Your task to perform on an android device: Go to privacy settings Image 0: 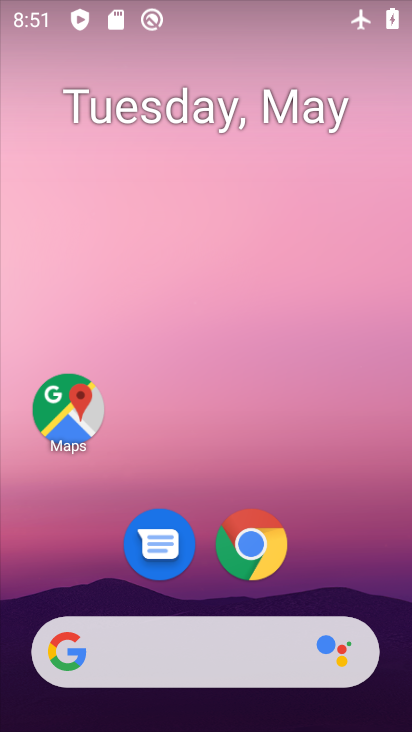
Step 0: drag from (352, 539) to (328, 233)
Your task to perform on an android device: Go to privacy settings Image 1: 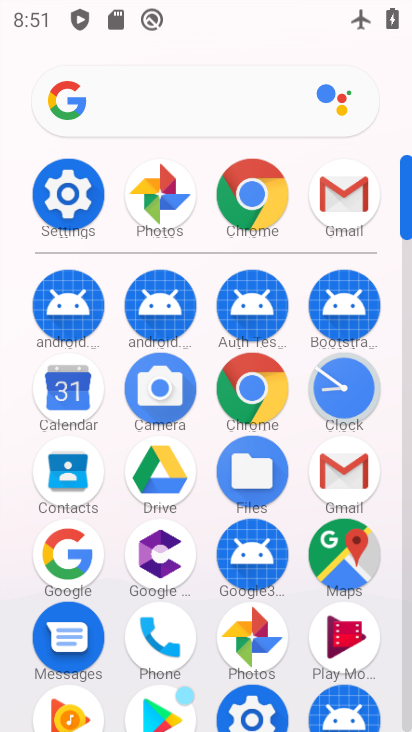
Step 1: click (43, 219)
Your task to perform on an android device: Go to privacy settings Image 2: 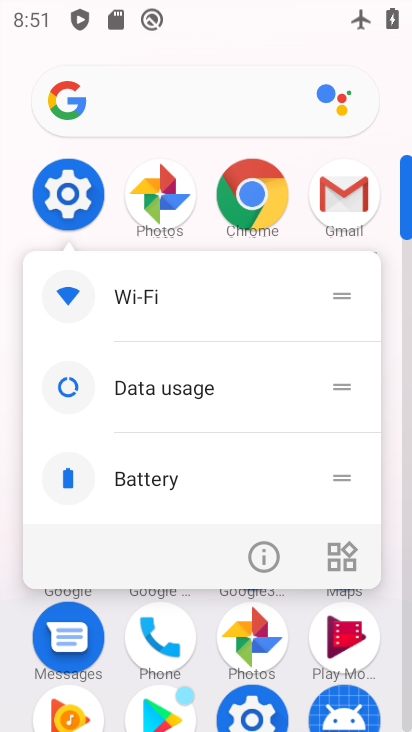
Step 2: click (67, 199)
Your task to perform on an android device: Go to privacy settings Image 3: 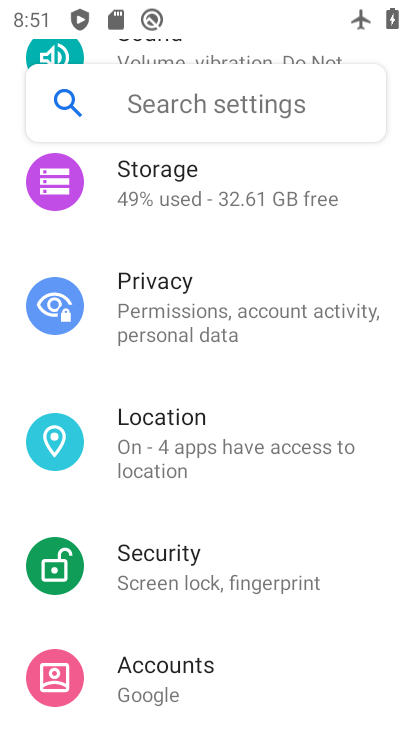
Step 3: click (185, 334)
Your task to perform on an android device: Go to privacy settings Image 4: 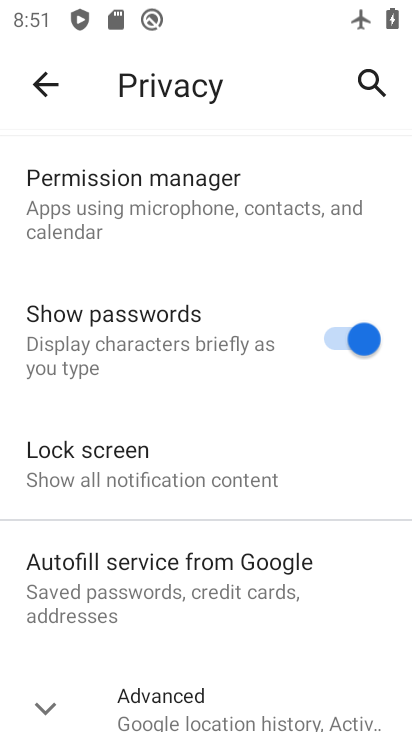
Step 4: task complete